Your task to perform on an android device: Open the map Image 0: 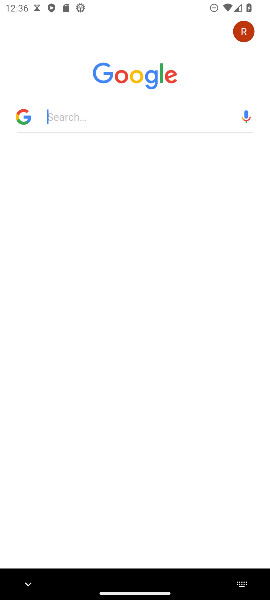
Step 0: press home button
Your task to perform on an android device: Open the map Image 1: 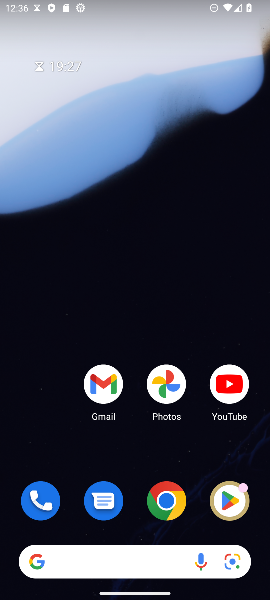
Step 1: drag from (128, 346) to (144, 190)
Your task to perform on an android device: Open the map Image 2: 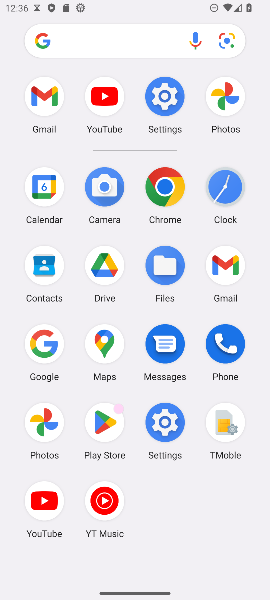
Step 2: click (109, 342)
Your task to perform on an android device: Open the map Image 3: 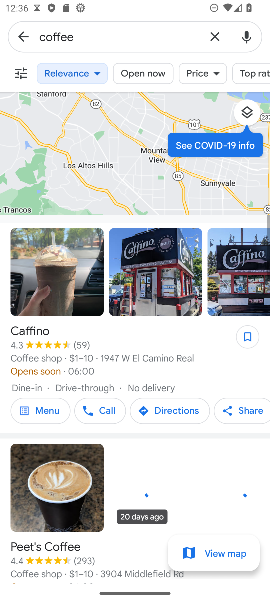
Step 3: task complete